Your task to perform on an android device: What is the news today? Image 0: 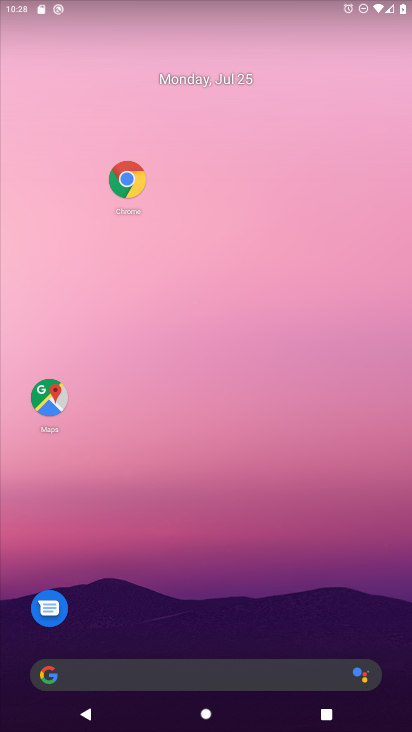
Step 0: click (140, 669)
Your task to perform on an android device: What is the news today? Image 1: 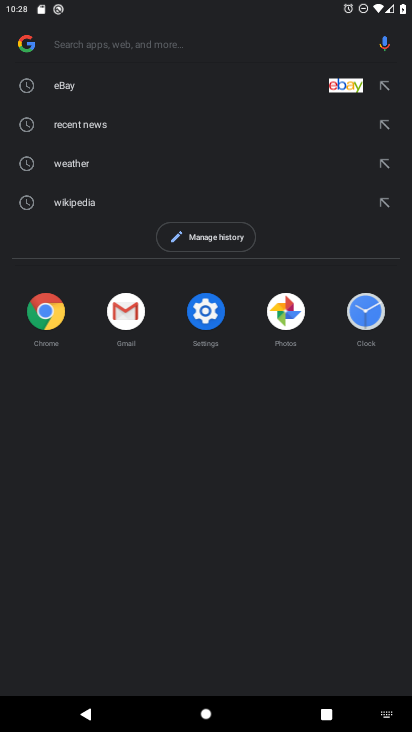
Step 1: type "news today"
Your task to perform on an android device: What is the news today? Image 2: 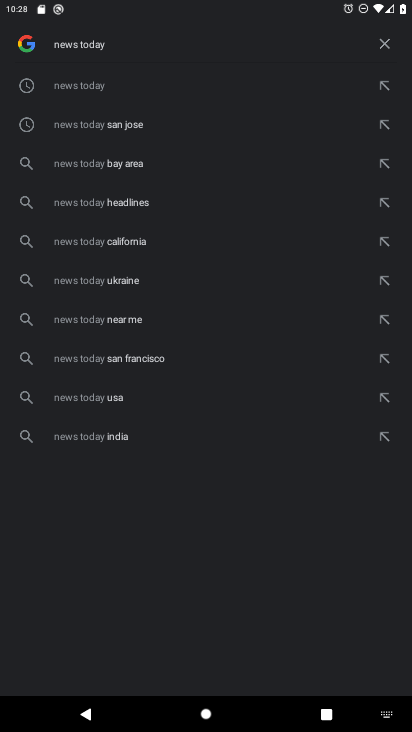
Step 2: press enter
Your task to perform on an android device: What is the news today? Image 3: 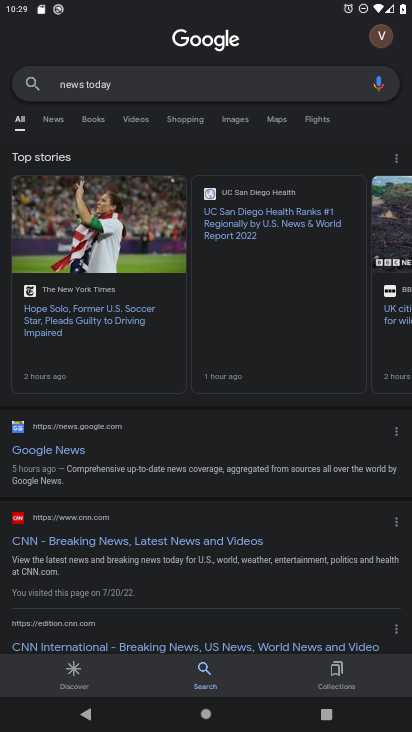
Step 3: task complete